Your task to perform on an android device: What is the news today? Image 0: 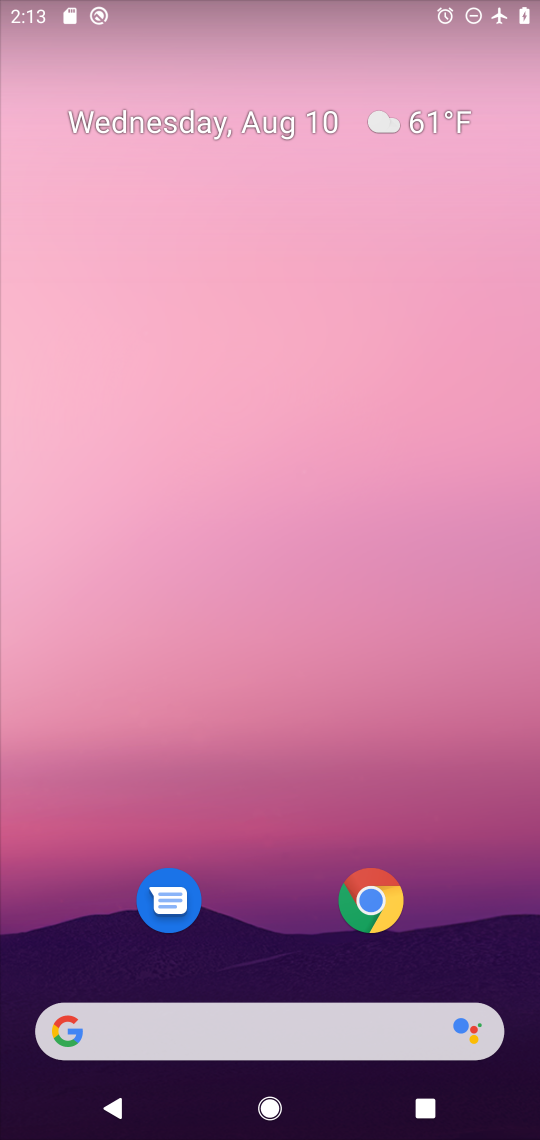
Step 0: click (268, 1044)
Your task to perform on an android device: What is the news today? Image 1: 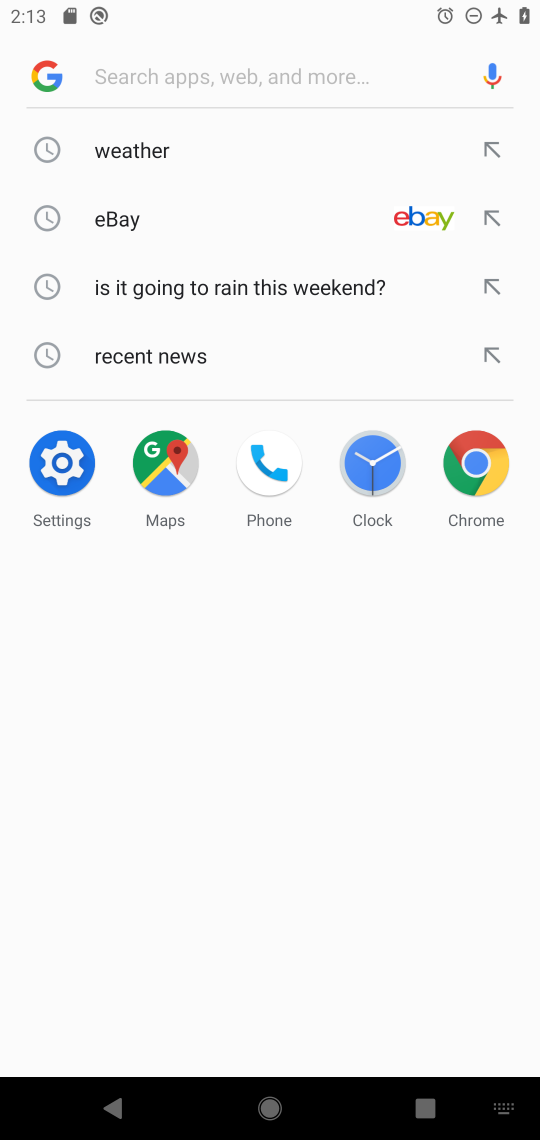
Step 1: click (197, 358)
Your task to perform on an android device: What is the news today? Image 2: 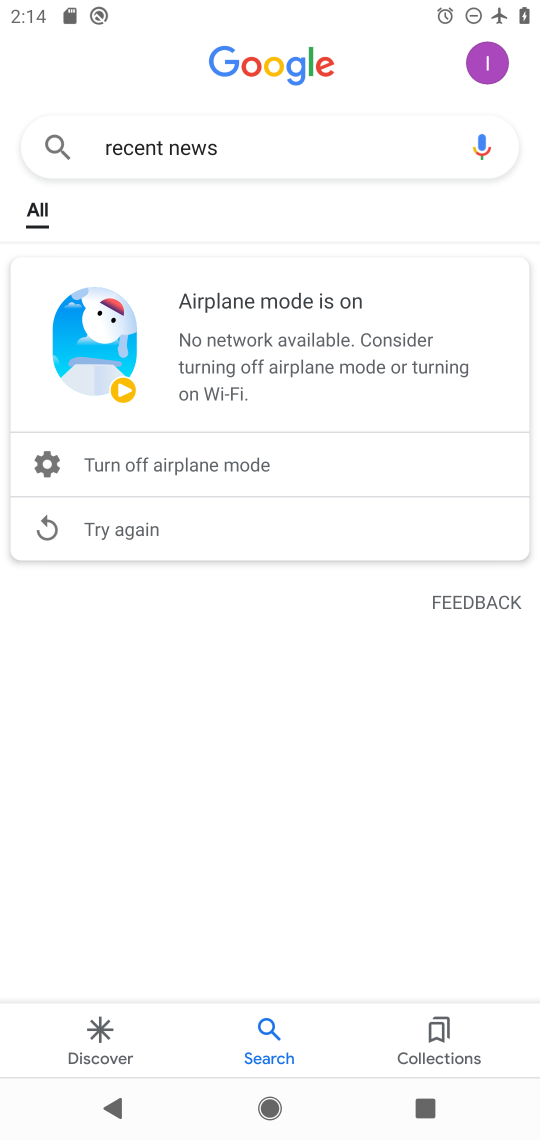
Step 2: task complete